Your task to perform on an android device: add a contact Image 0: 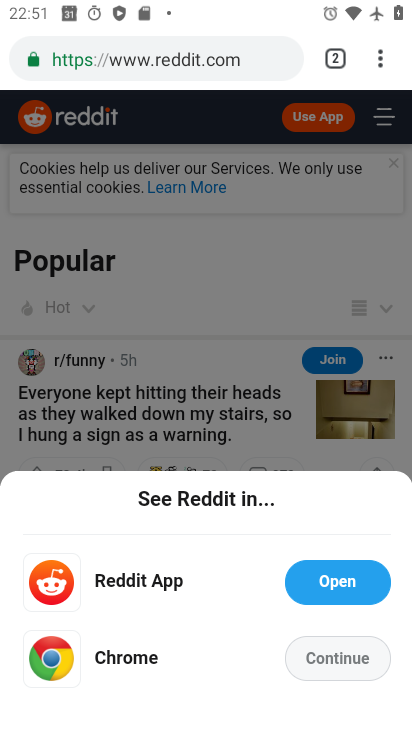
Step 0: press home button
Your task to perform on an android device: add a contact Image 1: 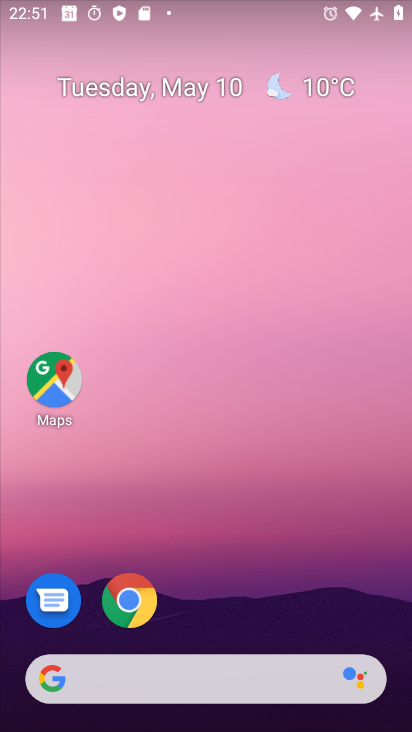
Step 1: drag from (231, 580) to (228, 0)
Your task to perform on an android device: add a contact Image 2: 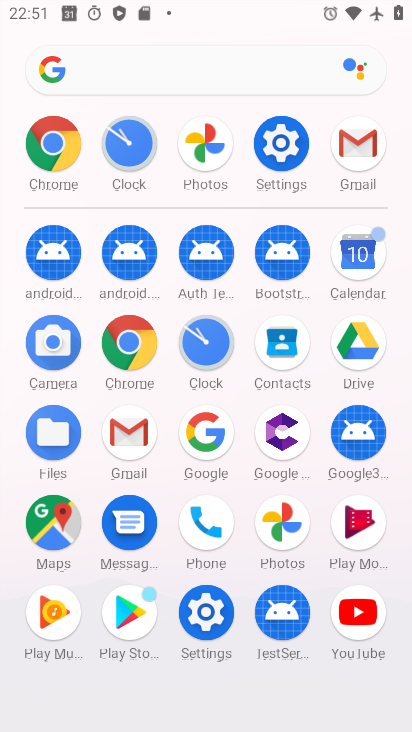
Step 2: click (201, 525)
Your task to perform on an android device: add a contact Image 3: 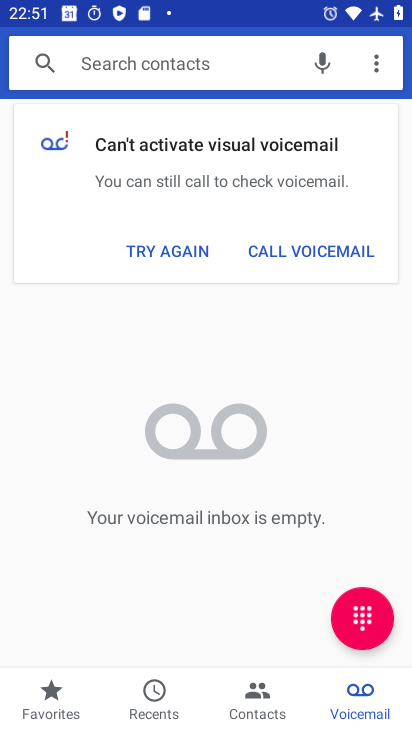
Step 3: click (239, 708)
Your task to perform on an android device: add a contact Image 4: 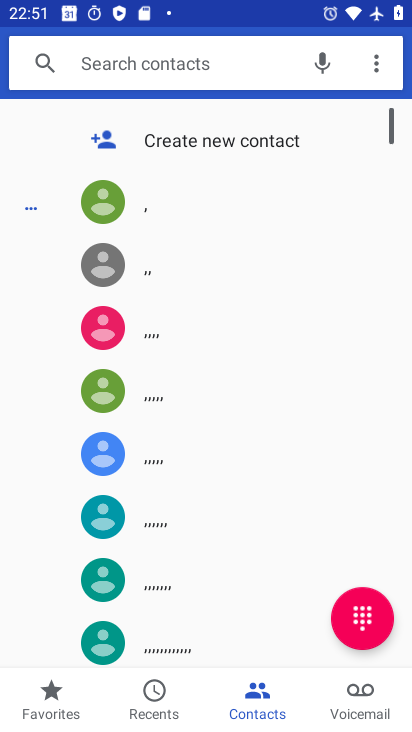
Step 4: click (171, 155)
Your task to perform on an android device: add a contact Image 5: 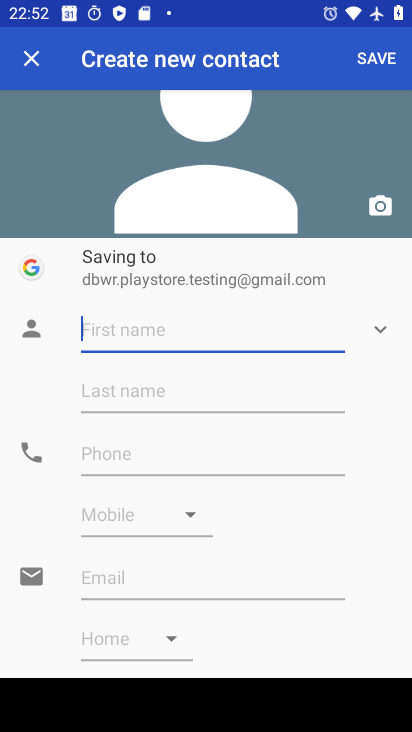
Step 5: click (109, 447)
Your task to perform on an android device: add a contact Image 6: 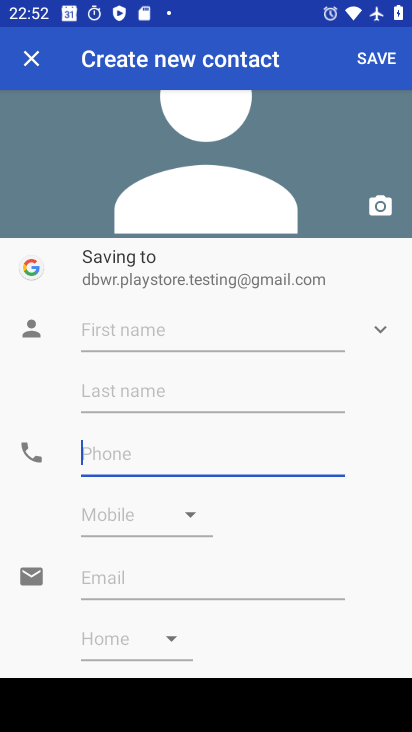
Step 6: click (232, 318)
Your task to perform on an android device: add a contact Image 7: 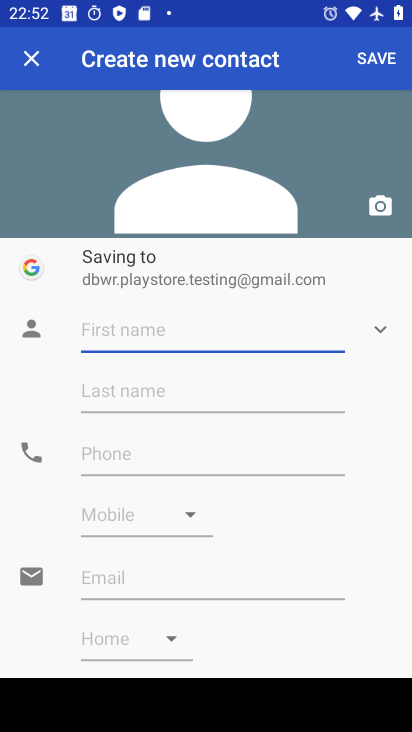
Step 7: type "th"
Your task to perform on an android device: add a contact Image 8: 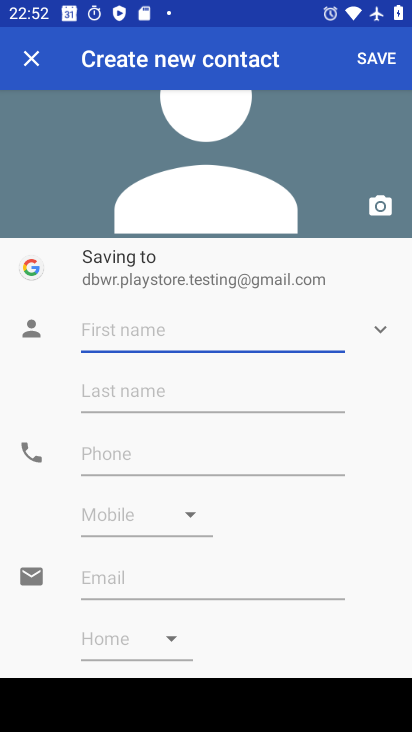
Step 8: click (132, 449)
Your task to perform on an android device: add a contact Image 9: 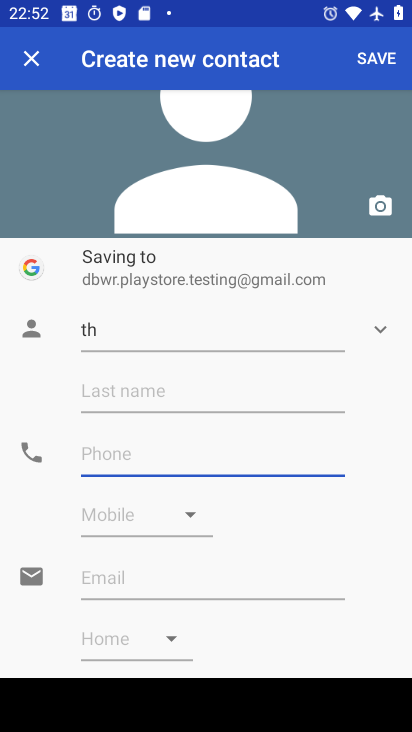
Step 9: type "r56786567896"
Your task to perform on an android device: add a contact Image 10: 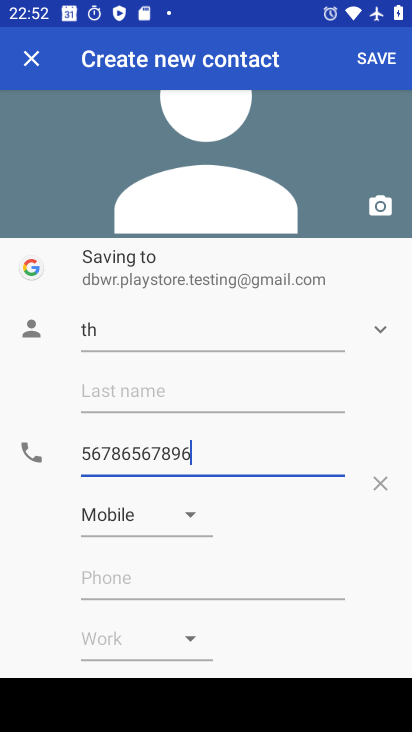
Step 10: click (380, 59)
Your task to perform on an android device: add a contact Image 11: 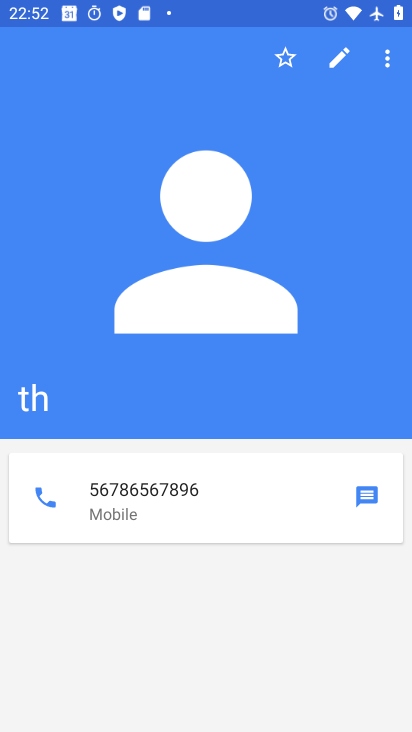
Step 11: task complete